Your task to perform on an android device: Open Google Chrome Image 0: 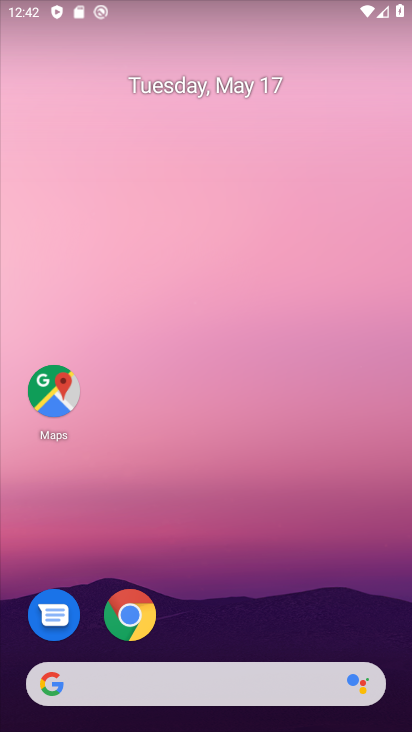
Step 0: click (132, 613)
Your task to perform on an android device: Open Google Chrome Image 1: 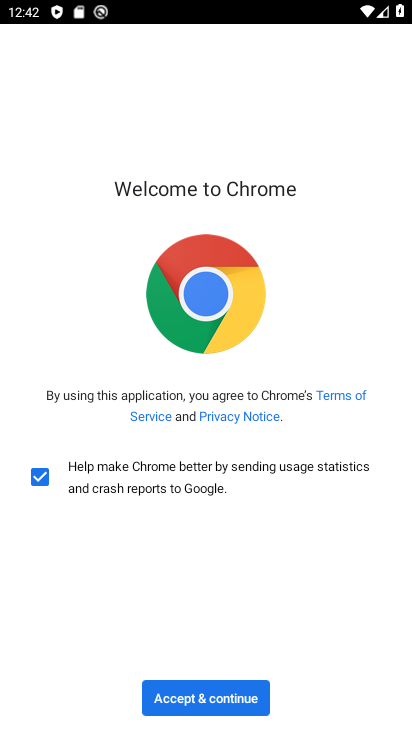
Step 1: click (209, 696)
Your task to perform on an android device: Open Google Chrome Image 2: 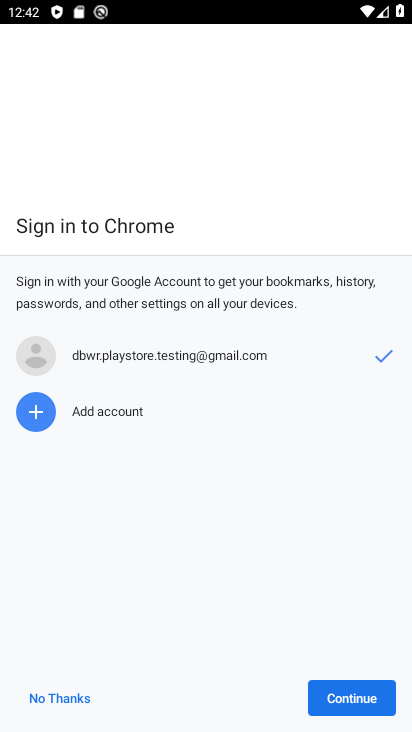
Step 2: click (359, 704)
Your task to perform on an android device: Open Google Chrome Image 3: 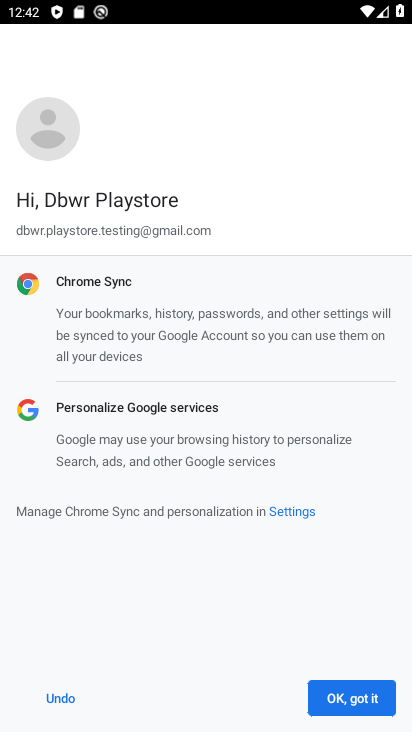
Step 3: click (359, 704)
Your task to perform on an android device: Open Google Chrome Image 4: 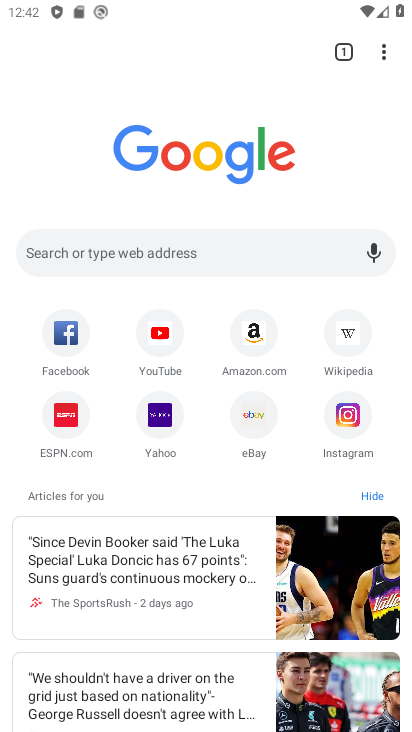
Step 4: task complete